Your task to perform on an android device: Open my contact list Image 0: 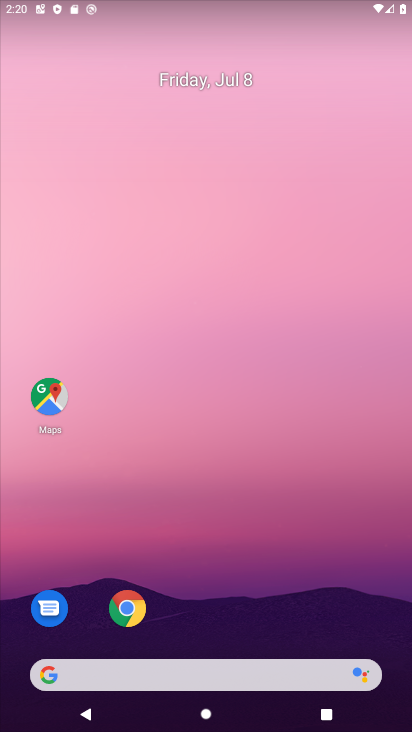
Step 0: drag from (297, 677) to (270, 16)
Your task to perform on an android device: Open my contact list Image 1: 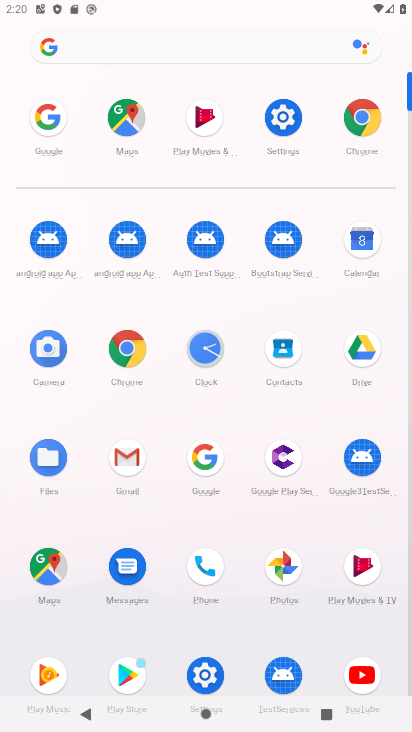
Step 1: click (272, 351)
Your task to perform on an android device: Open my contact list Image 2: 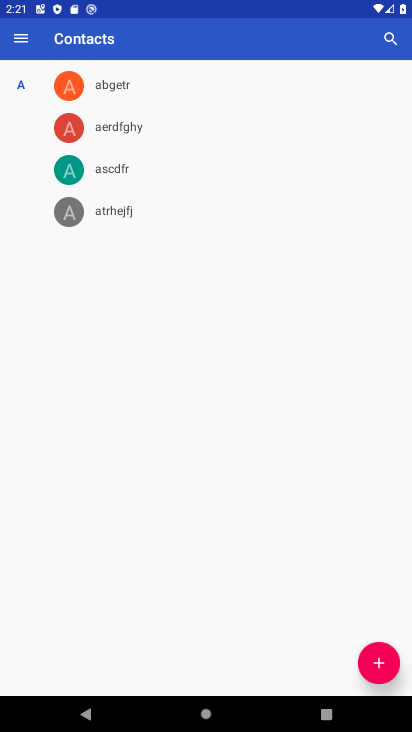
Step 2: task complete